Your task to perform on an android device: check out phone information Image 0: 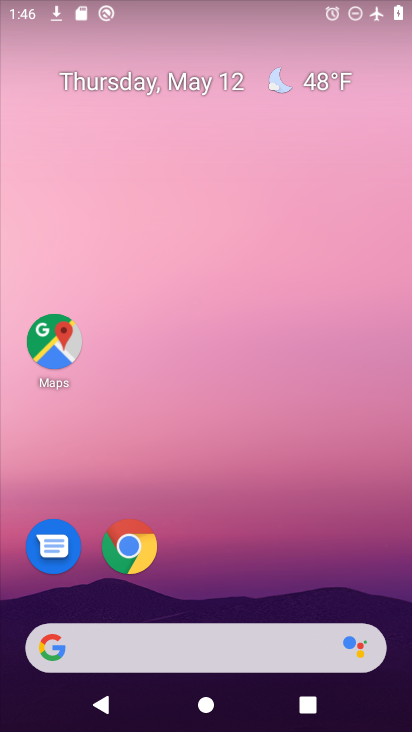
Step 0: drag from (241, 623) to (326, 32)
Your task to perform on an android device: check out phone information Image 1: 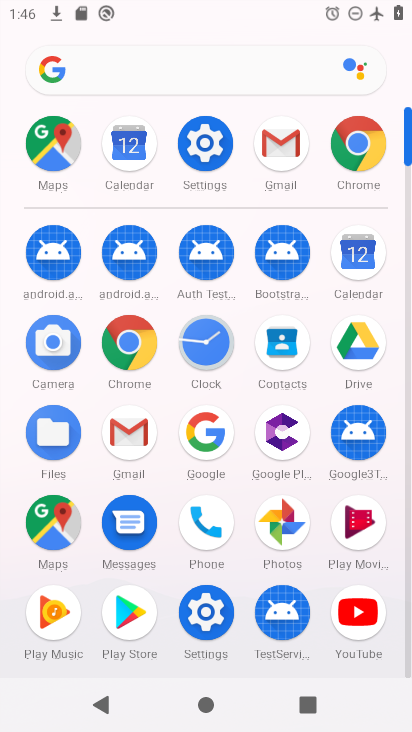
Step 1: click (208, 139)
Your task to perform on an android device: check out phone information Image 2: 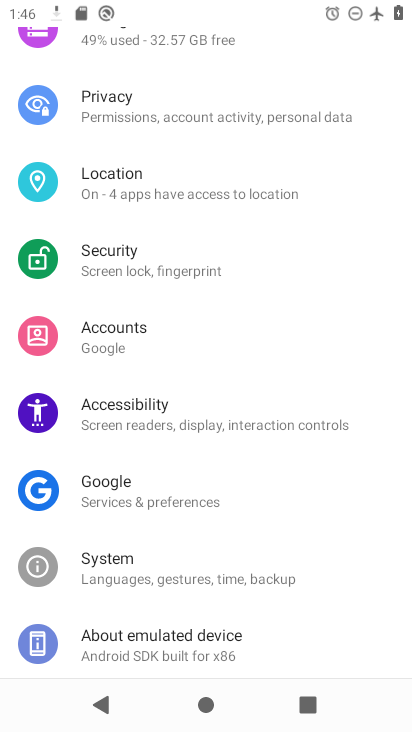
Step 2: drag from (255, 630) to (293, 87)
Your task to perform on an android device: check out phone information Image 3: 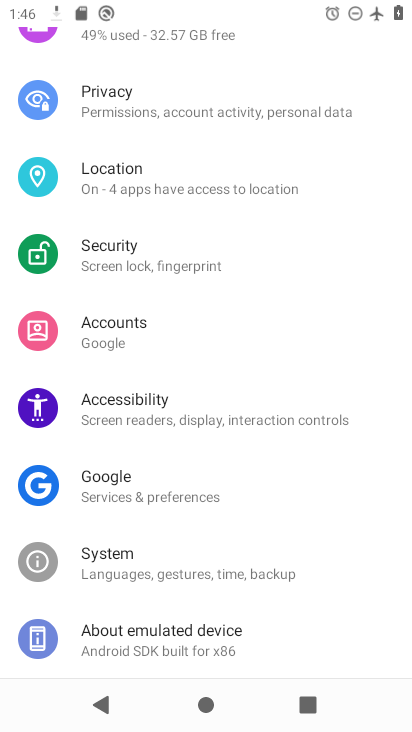
Step 3: drag from (281, 554) to (382, 229)
Your task to perform on an android device: check out phone information Image 4: 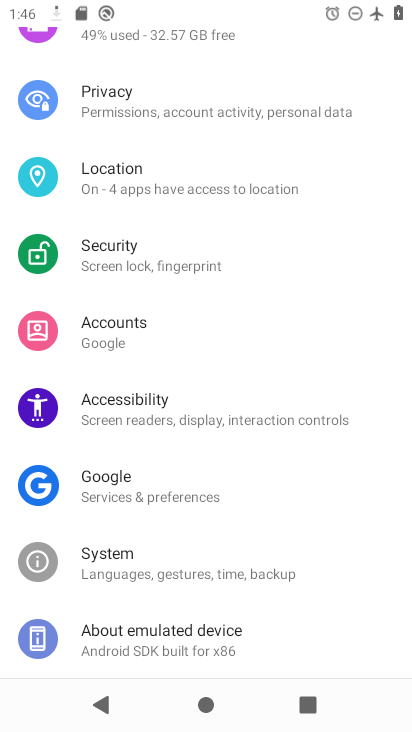
Step 4: click (155, 637)
Your task to perform on an android device: check out phone information Image 5: 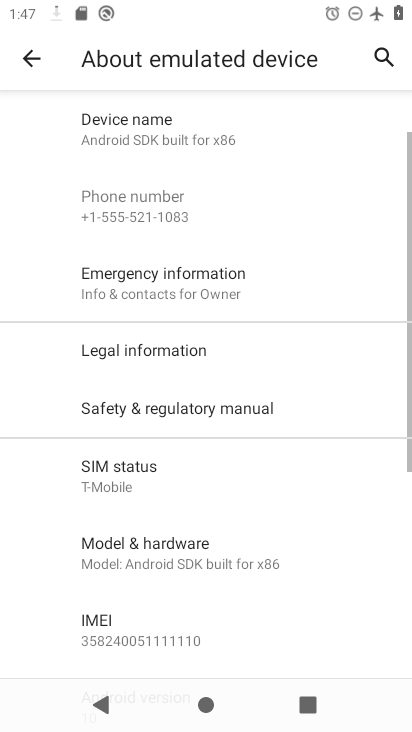
Step 5: task complete